Your task to perform on an android device: Open wifi settings Image 0: 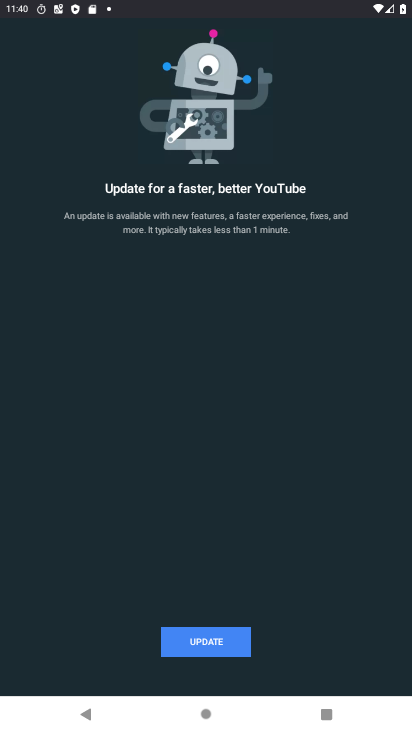
Step 0: press home button
Your task to perform on an android device: Open wifi settings Image 1: 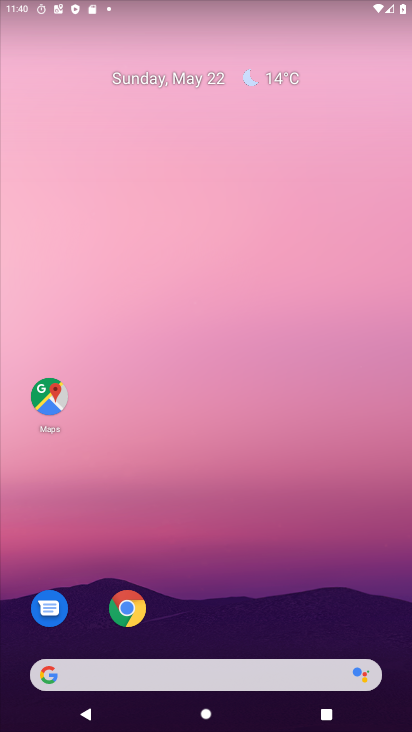
Step 1: drag from (250, 724) to (204, 125)
Your task to perform on an android device: Open wifi settings Image 2: 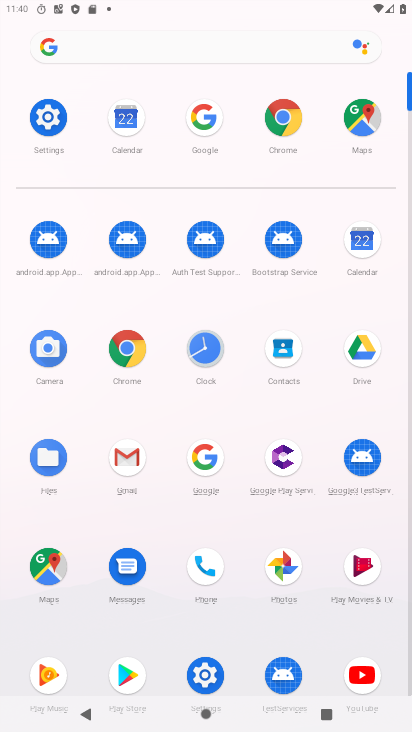
Step 2: click (46, 119)
Your task to perform on an android device: Open wifi settings Image 3: 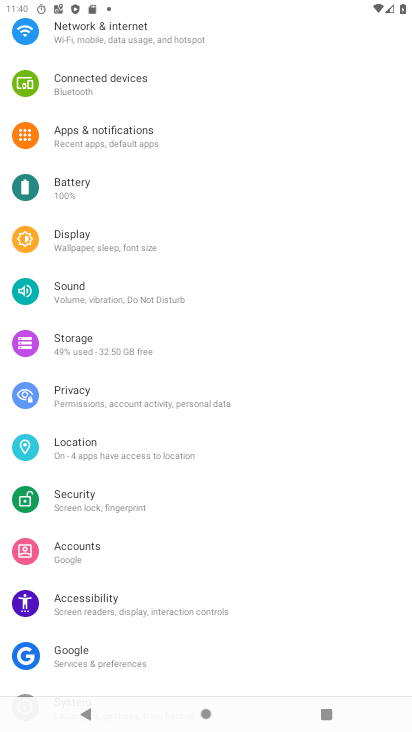
Step 3: drag from (165, 94) to (178, 460)
Your task to perform on an android device: Open wifi settings Image 4: 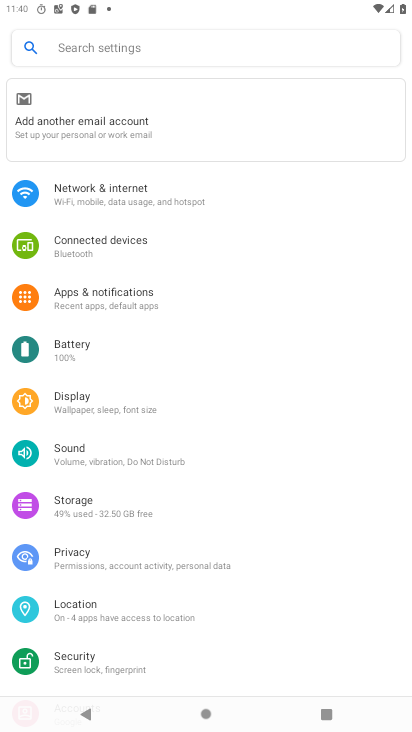
Step 4: click (103, 187)
Your task to perform on an android device: Open wifi settings Image 5: 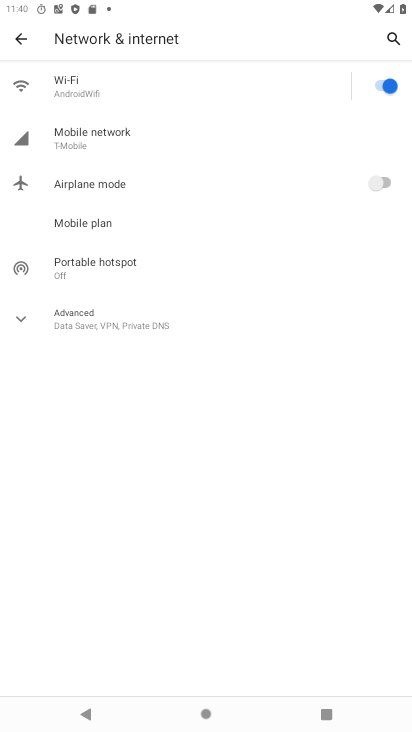
Step 5: click (77, 89)
Your task to perform on an android device: Open wifi settings Image 6: 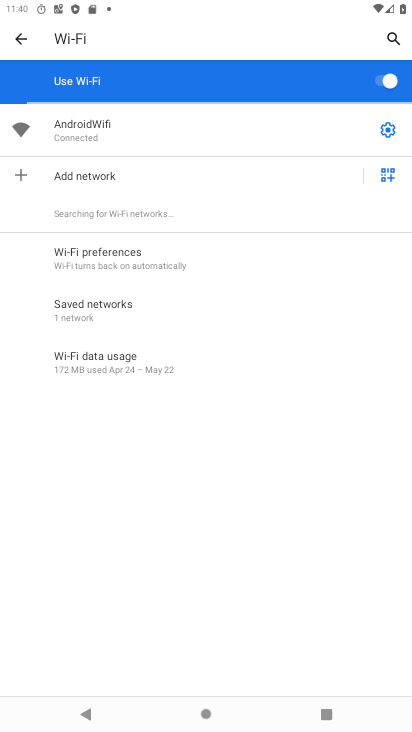
Step 6: task complete